Your task to perform on an android device: turn on the 24-hour format for clock Image 0: 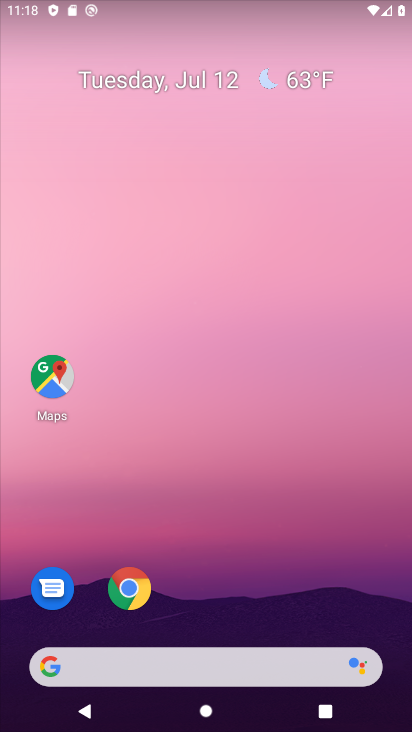
Step 0: drag from (25, 702) to (230, 111)
Your task to perform on an android device: turn on the 24-hour format for clock Image 1: 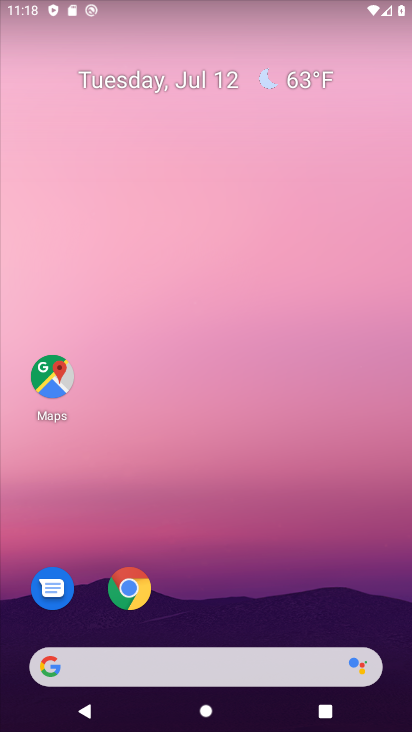
Step 1: drag from (43, 692) to (182, 105)
Your task to perform on an android device: turn on the 24-hour format for clock Image 2: 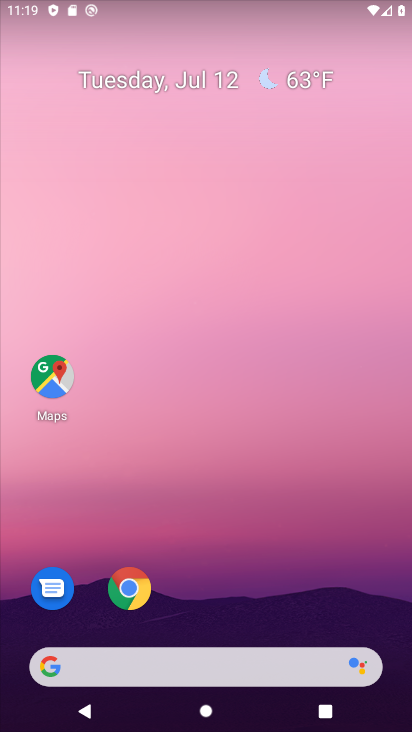
Step 2: drag from (55, 674) to (163, 159)
Your task to perform on an android device: turn on the 24-hour format for clock Image 3: 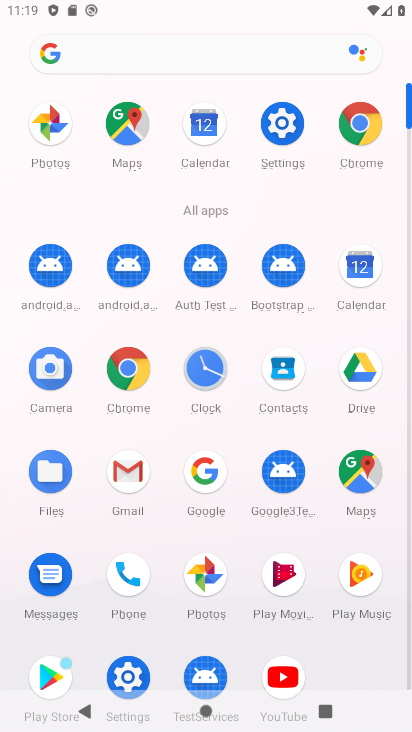
Step 3: click (204, 381)
Your task to perform on an android device: turn on the 24-hour format for clock Image 4: 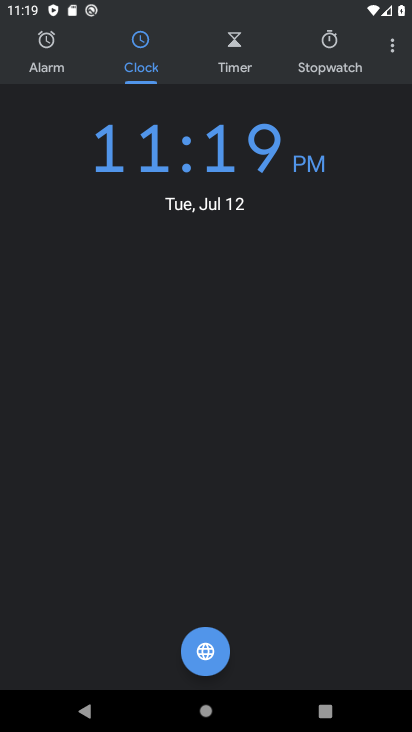
Step 4: click (394, 50)
Your task to perform on an android device: turn on the 24-hour format for clock Image 5: 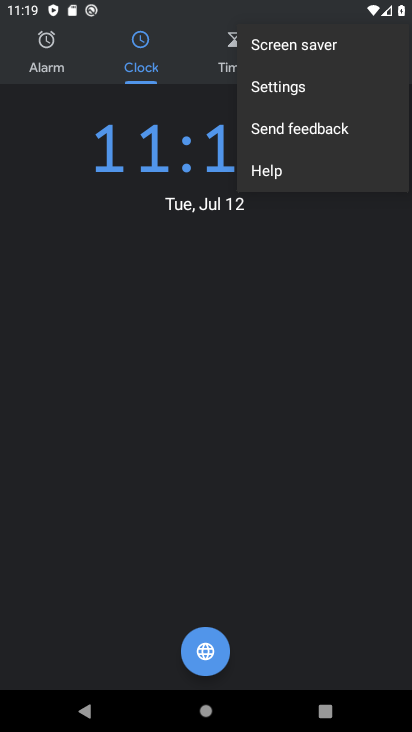
Step 5: click (308, 93)
Your task to perform on an android device: turn on the 24-hour format for clock Image 6: 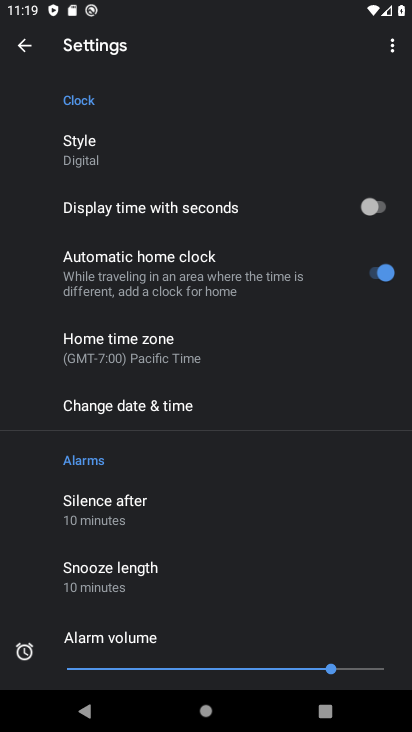
Step 6: drag from (166, 501) to (195, 326)
Your task to perform on an android device: turn on the 24-hour format for clock Image 7: 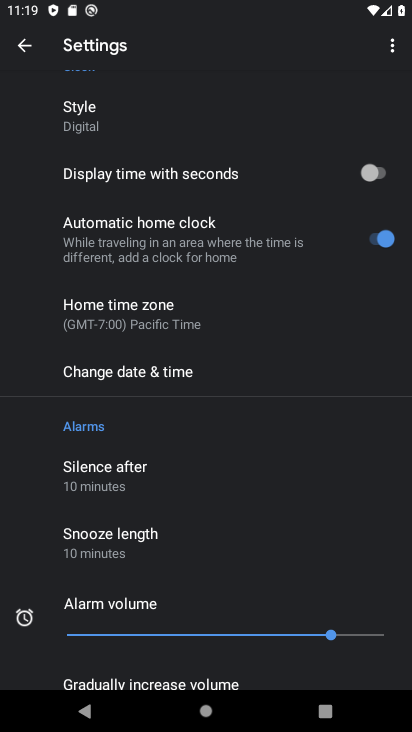
Step 7: click (167, 369)
Your task to perform on an android device: turn on the 24-hour format for clock Image 8: 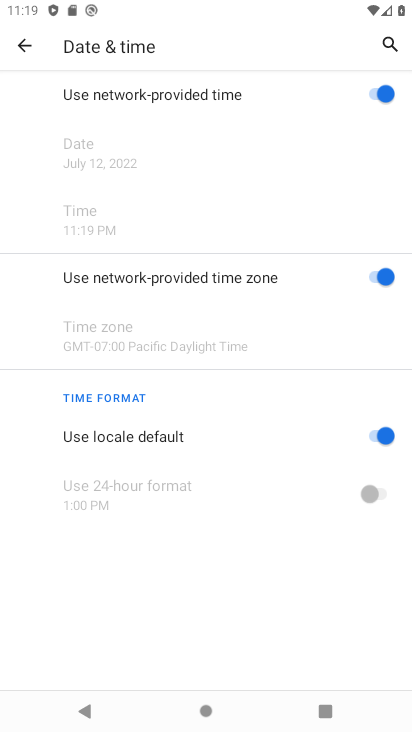
Step 8: click (379, 495)
Your task to perform on an android device: turn on the 24-hour format for clock Image 9: 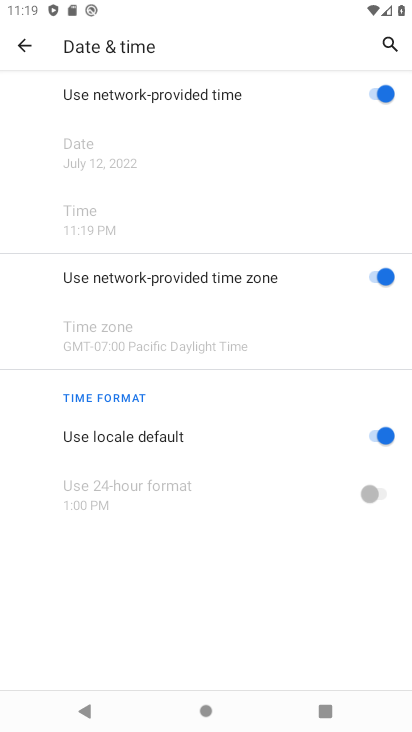
Step 9: click (388, 430)
Your task to perform on an android device: turn on the 24-hour format for clock Image 10: 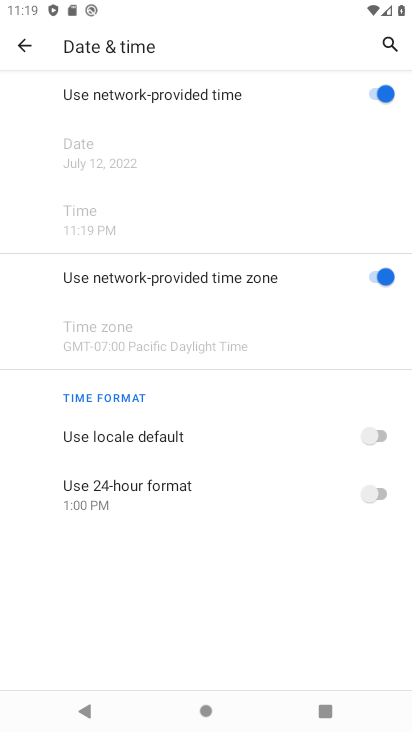
Step 10: click (377, 489)
Your task to perform on an android device: turn on the 24-hour format for clock Image 11: 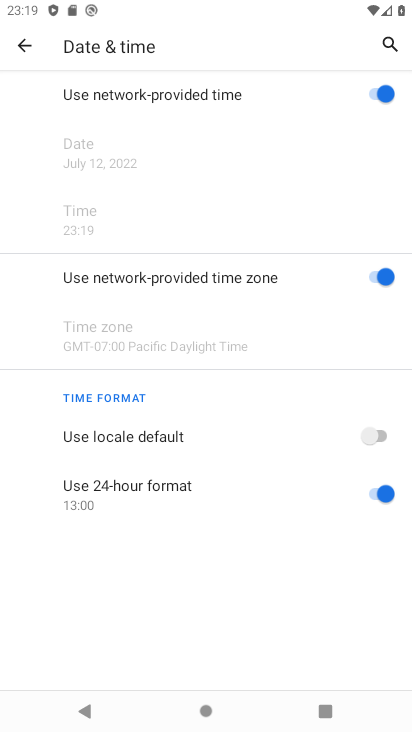
Step 11: task complete